Your task to perform on an android device: Where can I buy a nice beach hat? Image 0: 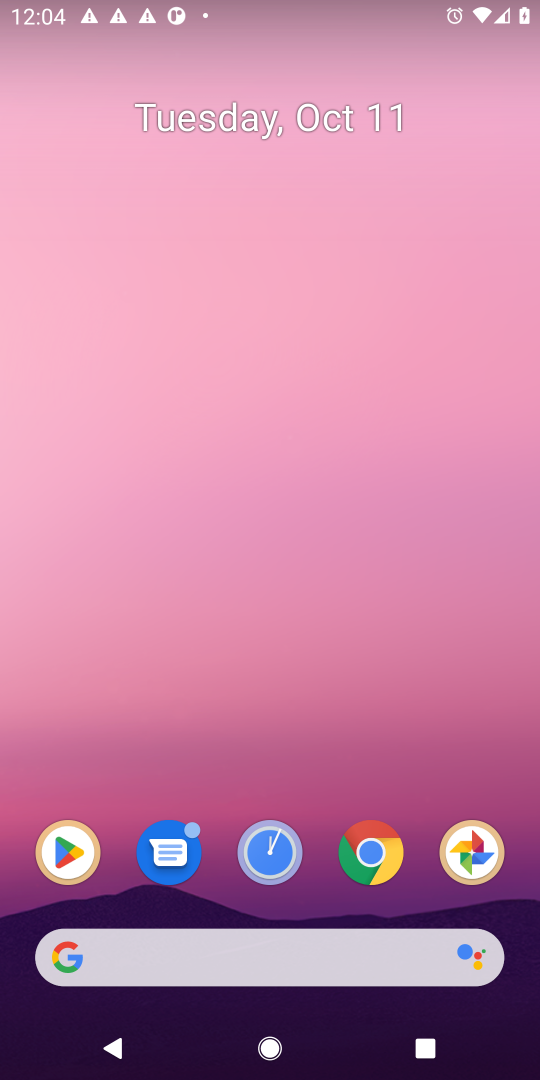
Step 0: click (374, 834)
Your task to perform on an android device: Where can I buy a nice beach hat? Image 1: 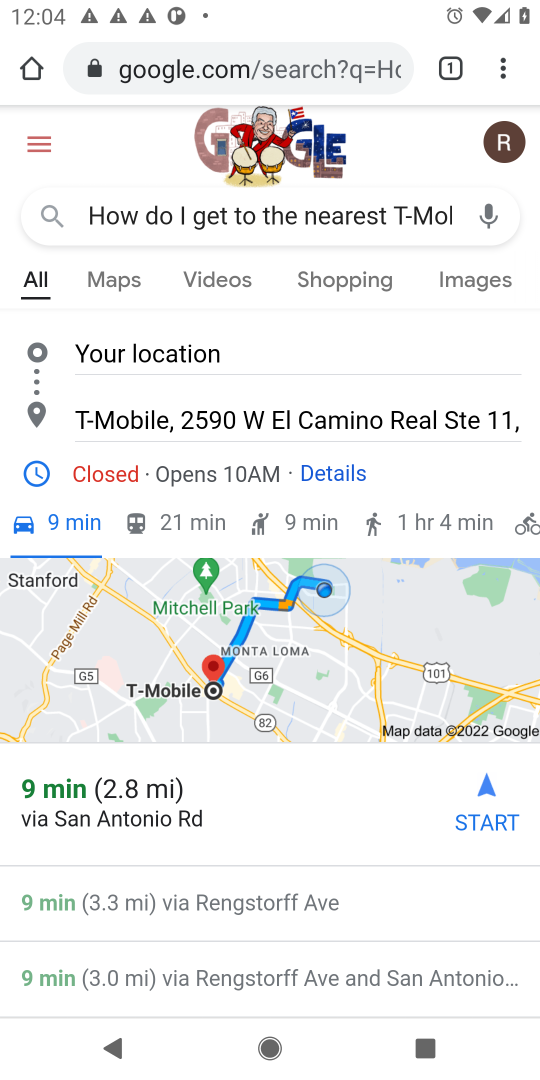
Step 1: click (214, 71)
Your task to perform on an android device: Where can I buy a nice beach hat? Image 2: 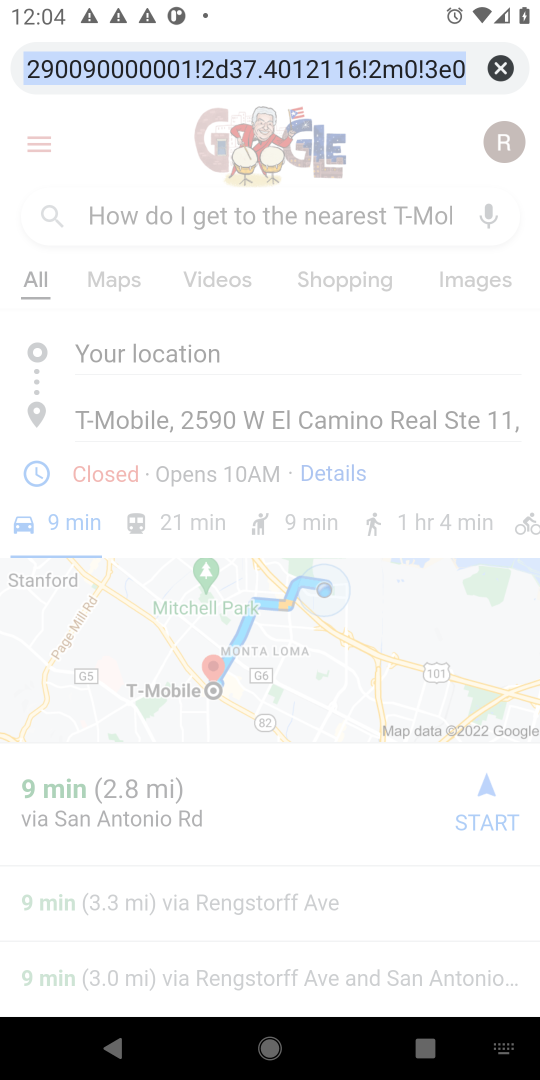
Step 2: type "Where can I buy a nice beach hat?"
Your task to perform on an android device: Where can I buy a nice beach hat? Image 3: 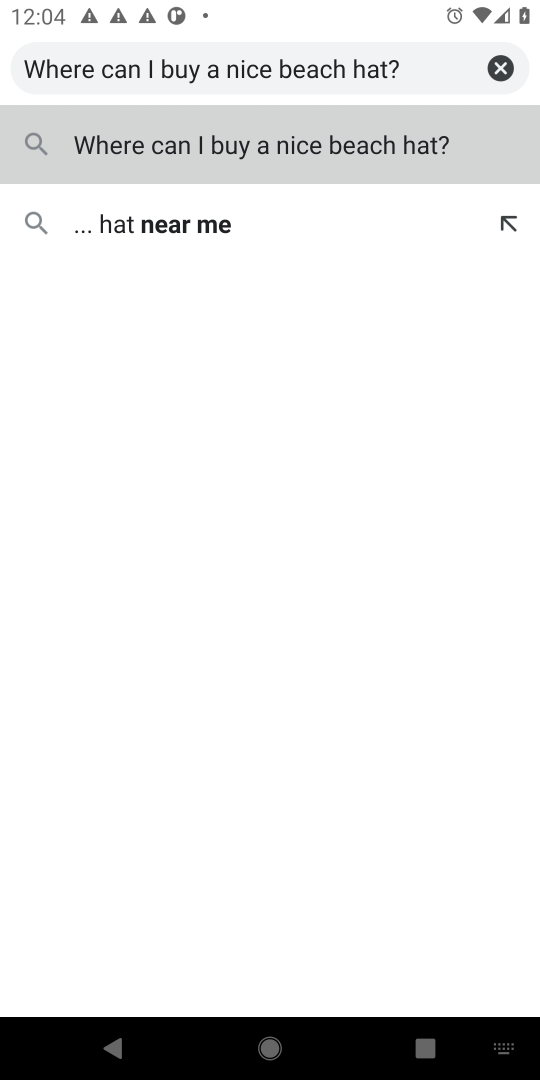
Step 3: click (455, 147)
Your task to perform on an android device: Where can I buy a nice beach hat? Image 4: 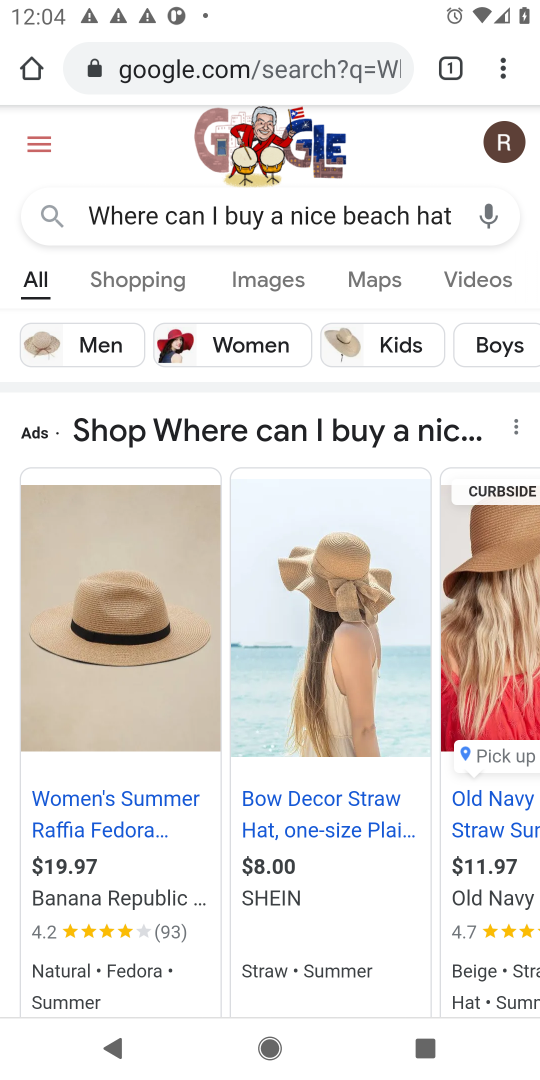
Step 4: task complete